Your task to perform on an android device: turn on javascript in the chrome app Image 0: 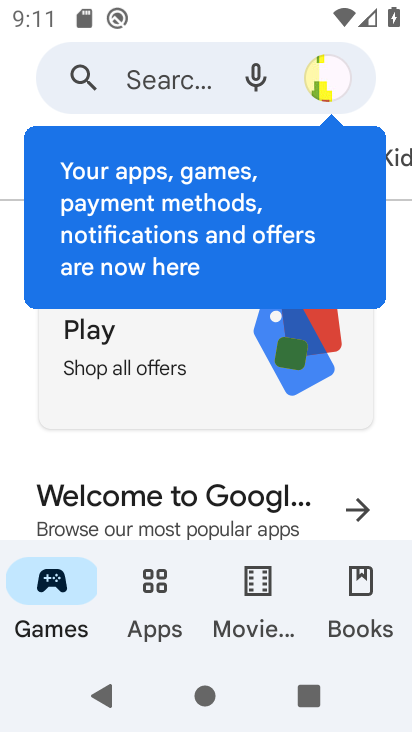
Step 0: press home button
Your task to perform on an android device: turn on javascript in the chrome app Image 1: 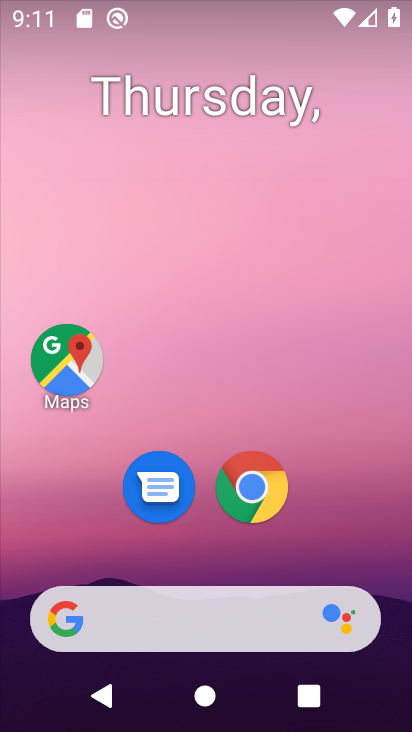
Step 1: click (254, 491)
Your task to perform on an android device: turn on javascript in the chrome app Image 2: 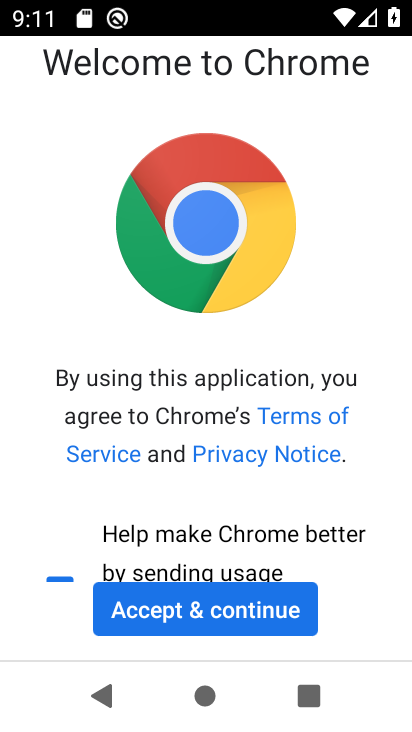
Step 2: click (225, 624)
Your task to perform on an android device: turn on javascript in the chrome app Image 3: 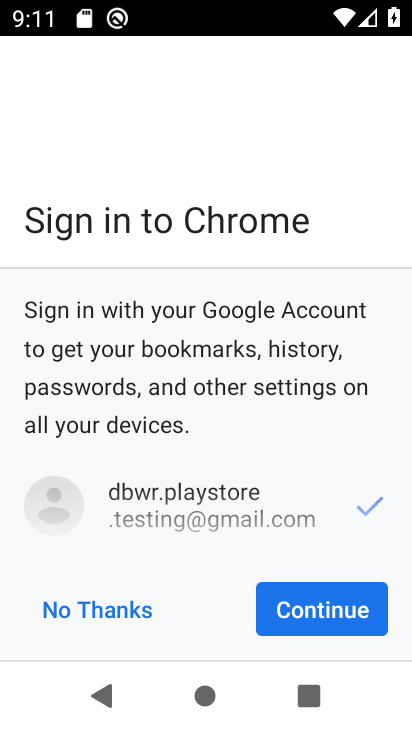
Step 3: click (304, 612)
Your task to perform on an android device: turn on javascript in the chrome app Image 4: 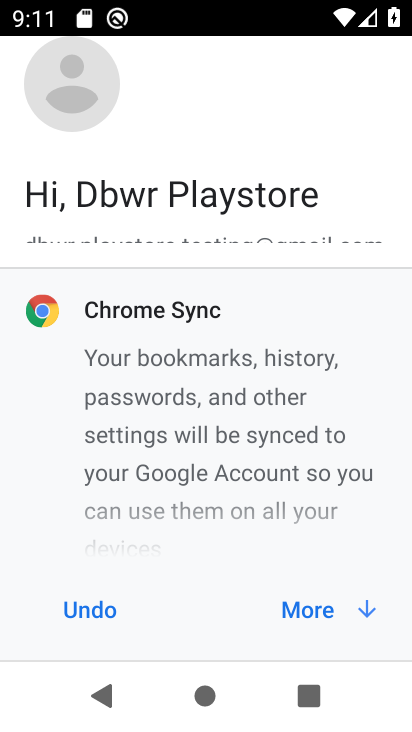
Step 4: click (357, 612)
Your task to perform on an android device: turn on javascript in the chrome app Image 5: 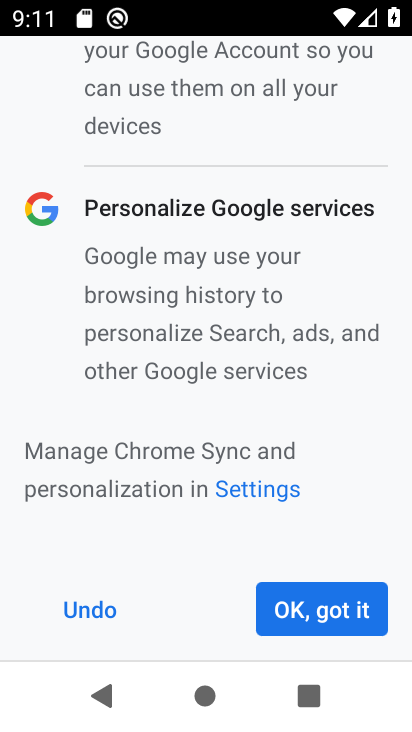
Step 5: click (357, 612)
Your task to perform on an android device: turn on javascript in the chrome app Image 6: 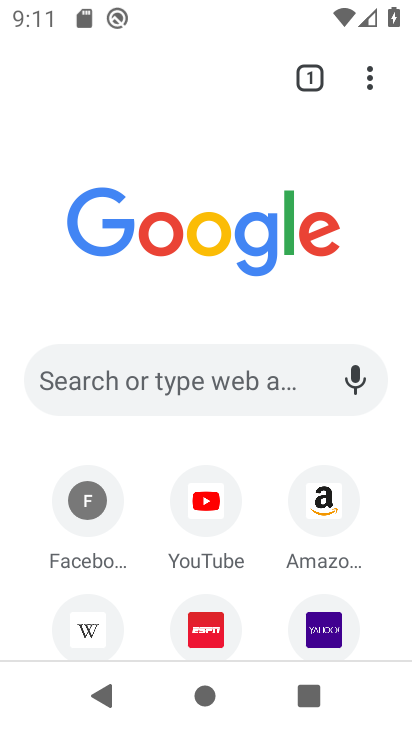
Step 6: click (372, 69)
Your task to perform on an android device: turn on javascript in the chrome app Image 7: 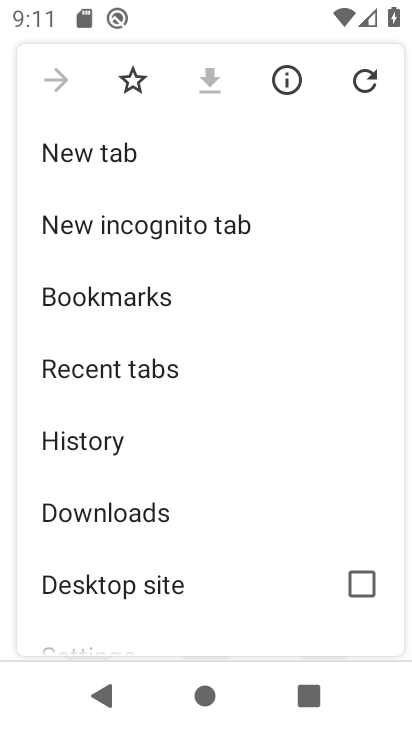
Step 7: drag from (193, 466) to (160, 193)
Your task to perform on an android device: turn on javascript in the chrome app Image 8: 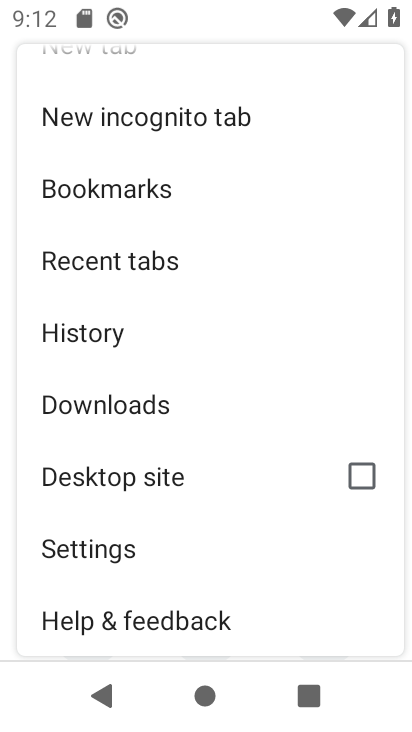
Step 8: drag from (248, 510) to (179, 162)
Your task to perform on an android device: turn on javascript in the chrome app Image 9: 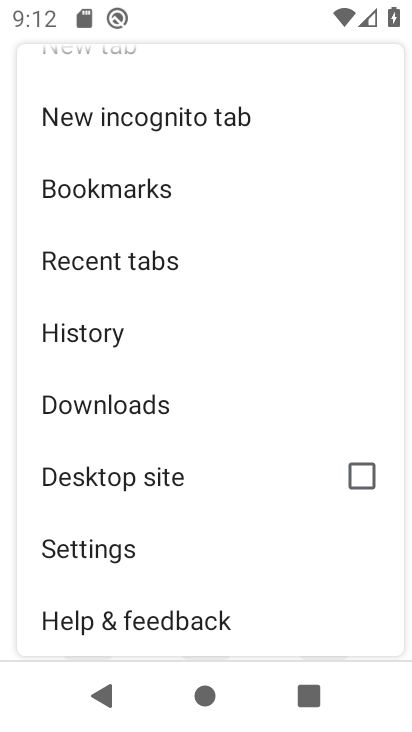
Step 9: click (109, 556)
Your task to perform on an android device: turn on javascript in the chrome app Image 10: 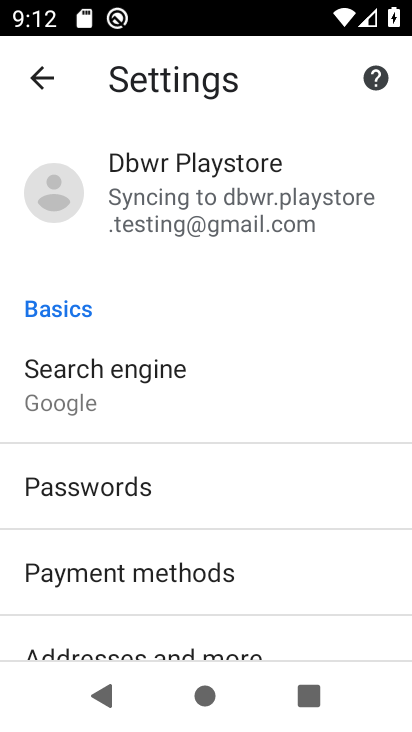
Step 10: drag from (281, 495) to (222, 205)
Your task to perform on an android device: turn on javascript in the chrome app Image 11: 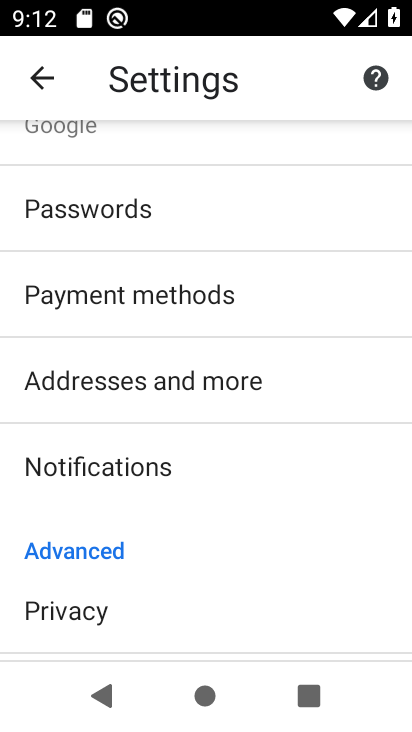
Step 11: drag from (218, 546) to (161, 172)
Your task to perform on an android device: turn on javascript in the chrome app Image 12: 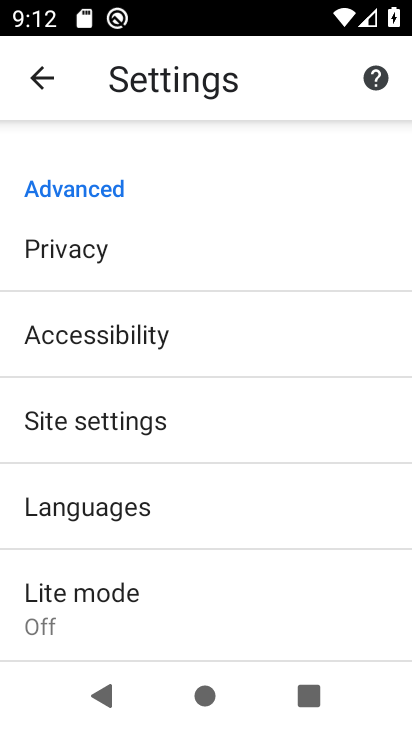
Step 12: drag from (273, 532) to (240, 366)
Your task to perform on an android device: turn on javascript in the chrome app Image 13: 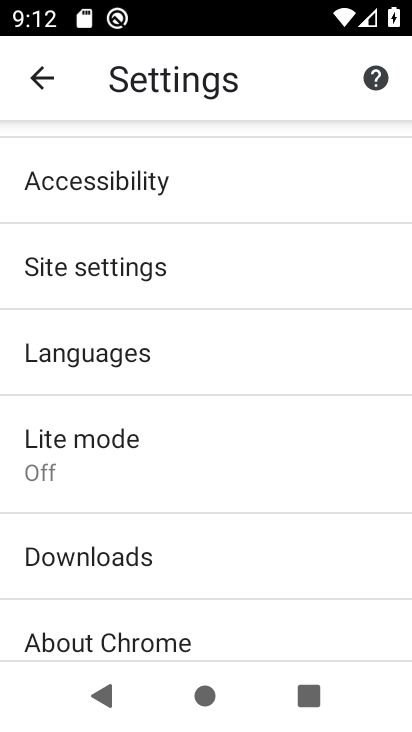
Step 13: click (95, 258)
Your task to perform on an android device: turn on javascript in the chrome app Image 14: 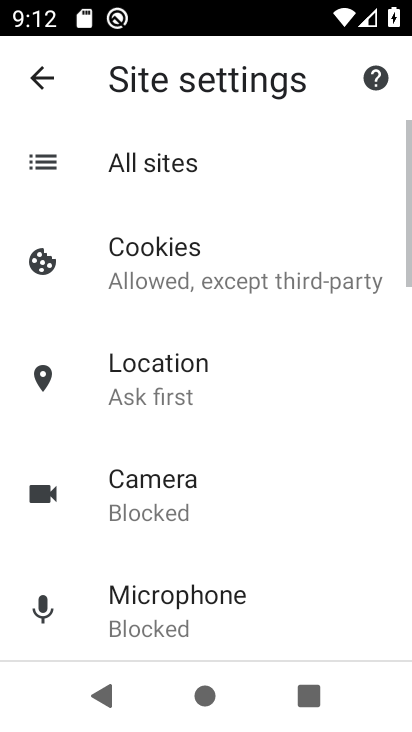
Step 14: drag from (303, 537) to (253, 281)
Your task to perform on an android device: turn on javascript in the chrome app Image 15: 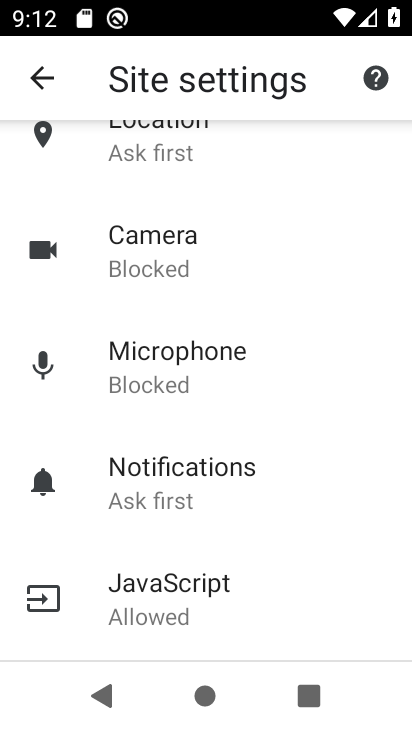
Step 15: click (184, 577)
Your task to perform on an android device: turn on javascript in the chrome app Image 16: 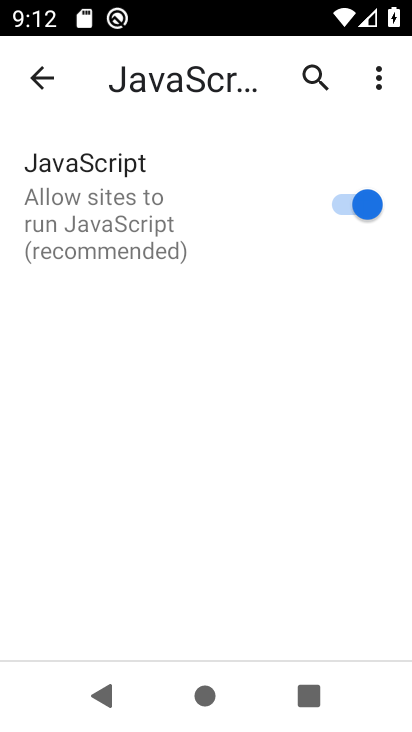
Step 16: task complete